Your task to perform on an android device: Open Amazon Image 0: 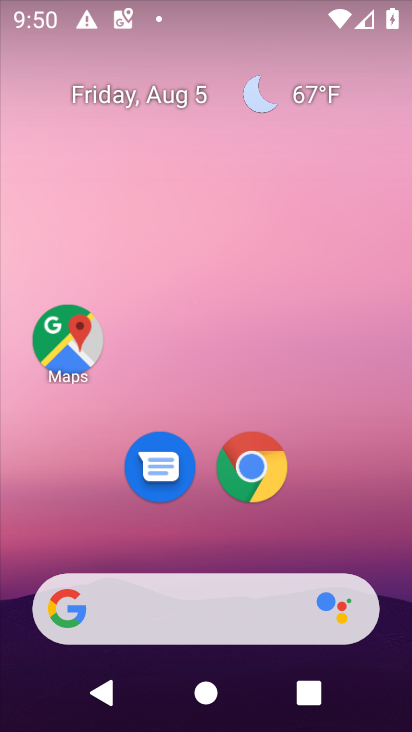
Step 0: drag from (204, 565) to (262, 199)
Your task to perform on an android device: Open Amazon Image 1: 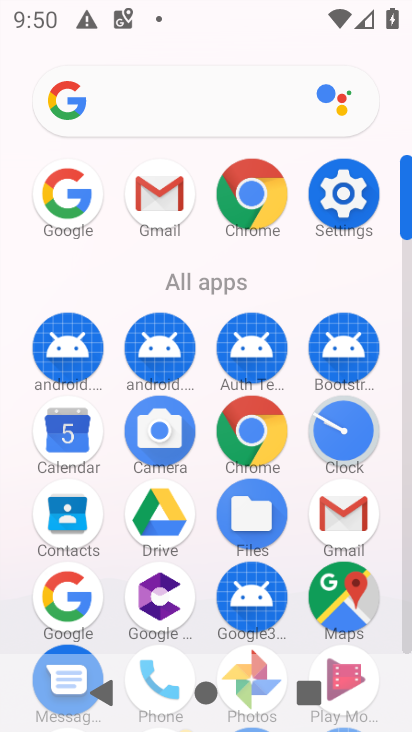
Step 1: click (63, 590)
Your task to perform on an android device: Open Amazon Image 2: 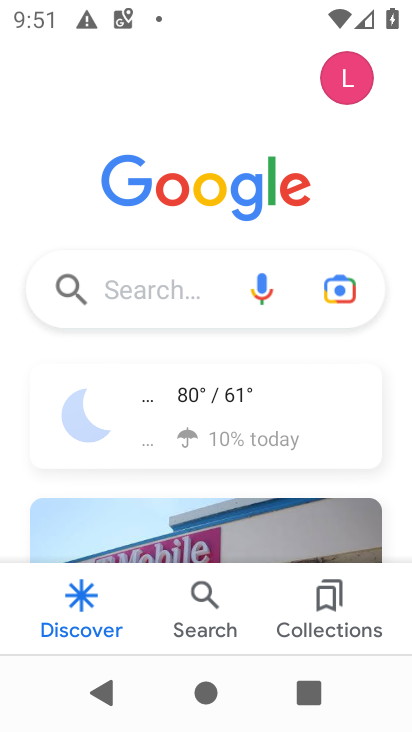
Step 2: click (119, 283)
Your task to perform on an android device: Open Amazon Image 3: 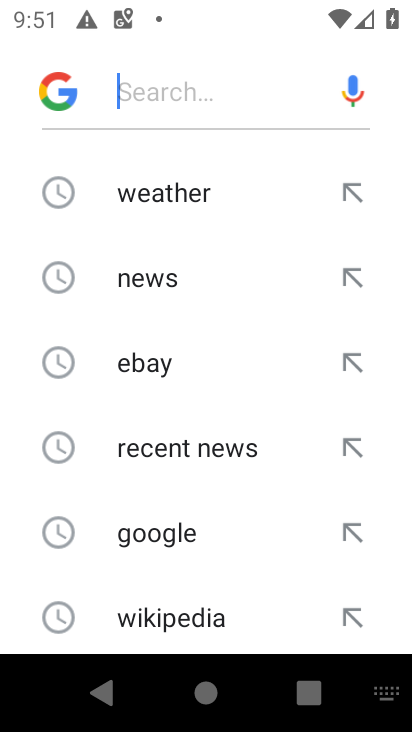
Step 3: drag from (162, 595) to (173, 196)
Your task to perform on an android device: Open Amazon Image 4: 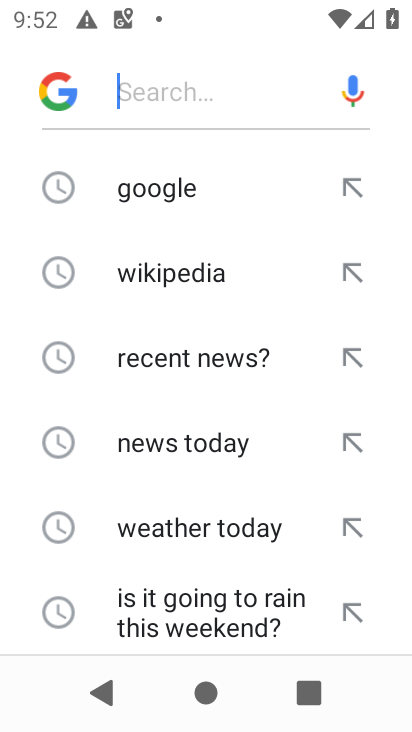
Step 4: drag from (179, 611) to (152, 267)
Your task to perform on an android device: Open Amazon Image 5: 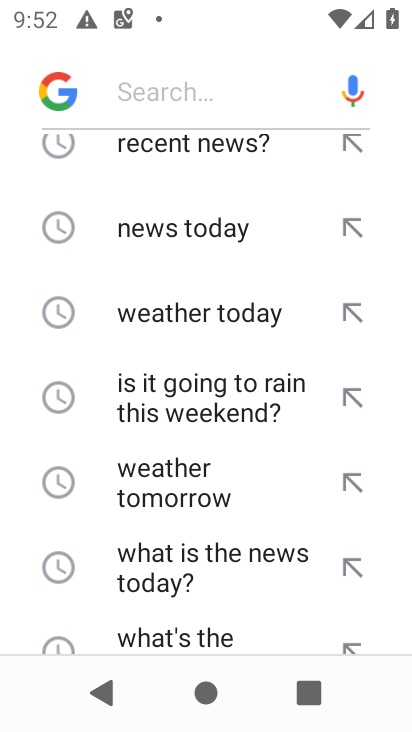
Step 5: drag from (165, 643) to (154, 250)
Your task to perform on an android device: Open Amazon Image 6: 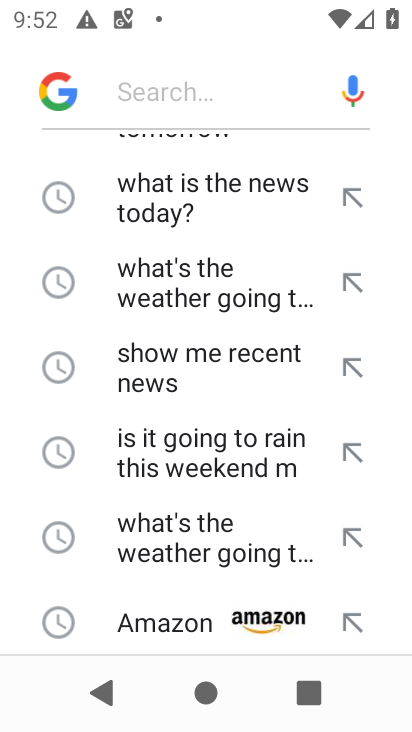
Step 6: drag from (201, 362) to (204, 222)
Your task to perform on an android device: Open Amazon Image 7: 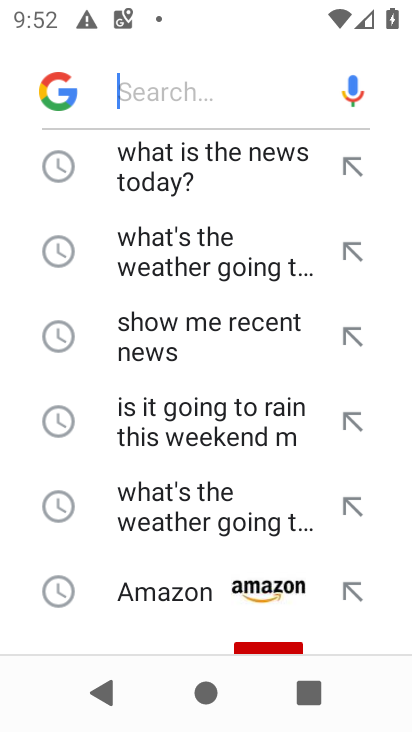
Step 7: click (179, 599)
Your task to perform on an android device: Open Amazon Image 8: 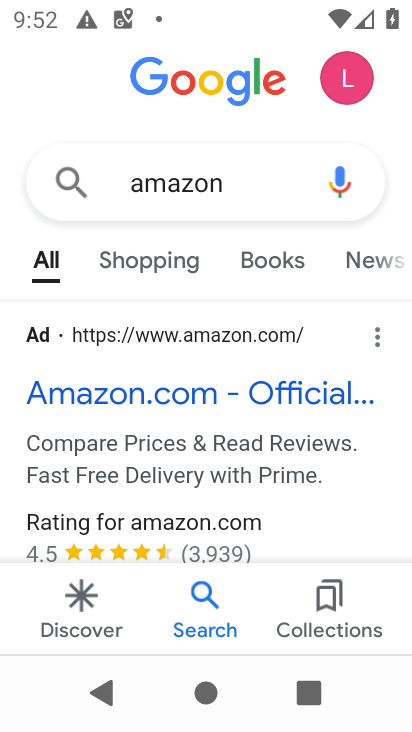
Step 8: click (122, 395)
Your task to perform on an android device: Open Amazon Image 9: 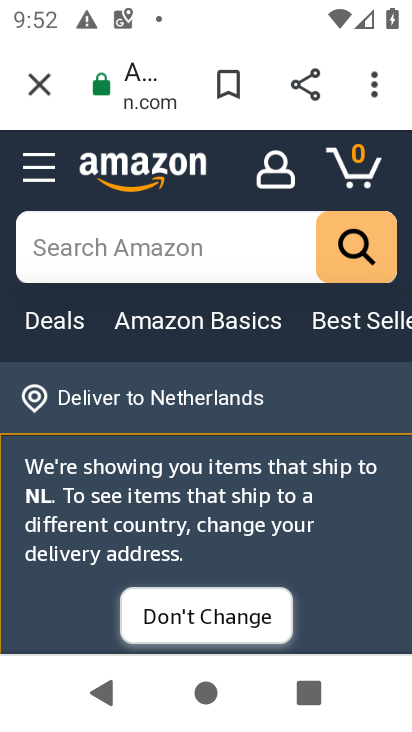
Step 9: task complete